Your task to perform on an android device: Go to Maps Image 0: 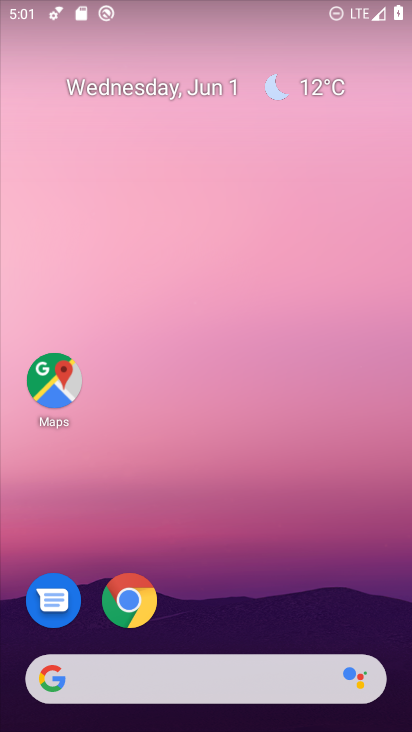
Step 0: click (55, 380)
Your task to perform on an android device: Go to Maps Image 1: 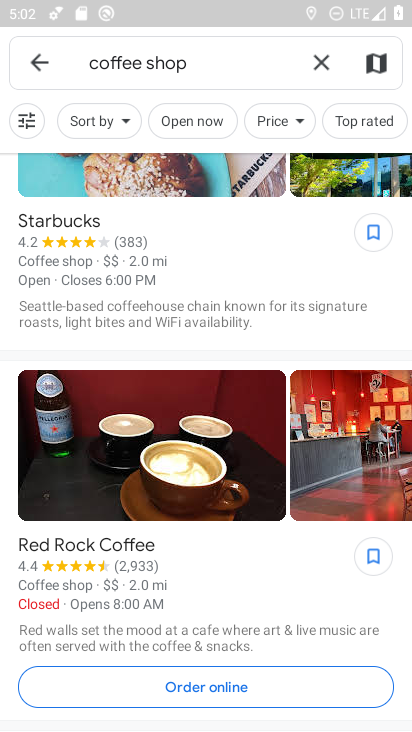
Step 1: click (320, 59)
Your task to perform on an android device: Go to Maps Image 2: 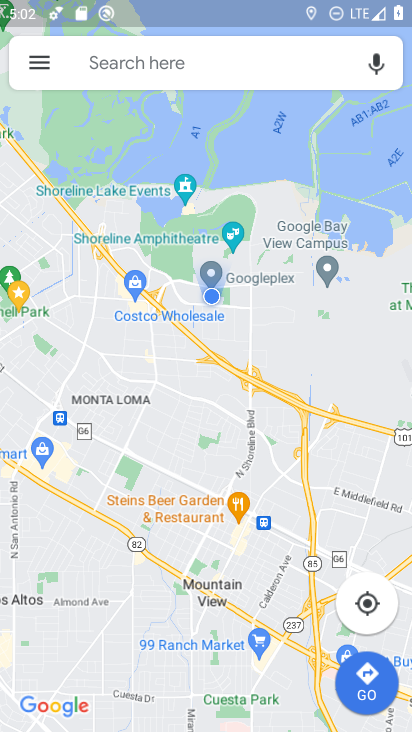
Step 2: task complete